Your task to perform on an android device: Toggle the flashlight Image 0: 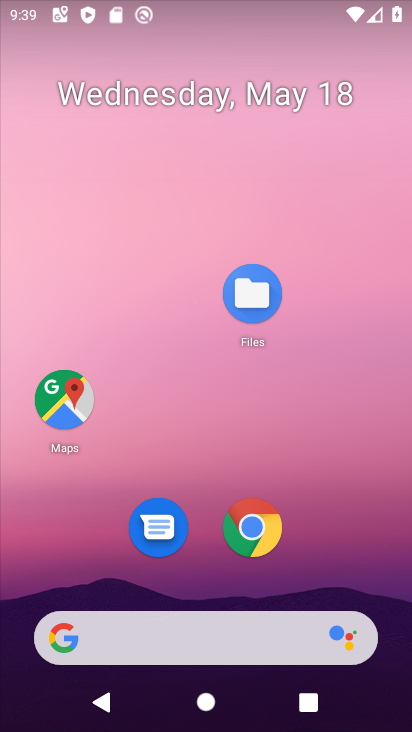
Step 0: drag from (311, 531) to (379, 166)
Your task to perform on an android device: Toggle the flashlight Image 1: 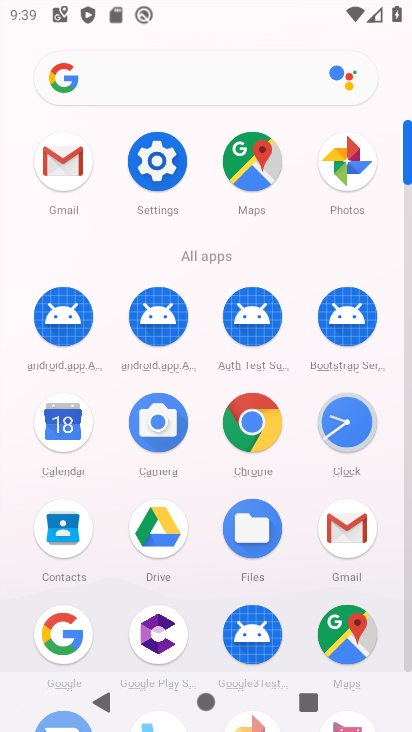
Step 1: click (149, 169)
Your task to perform on an android device: Toggle the flashlight Image 2: 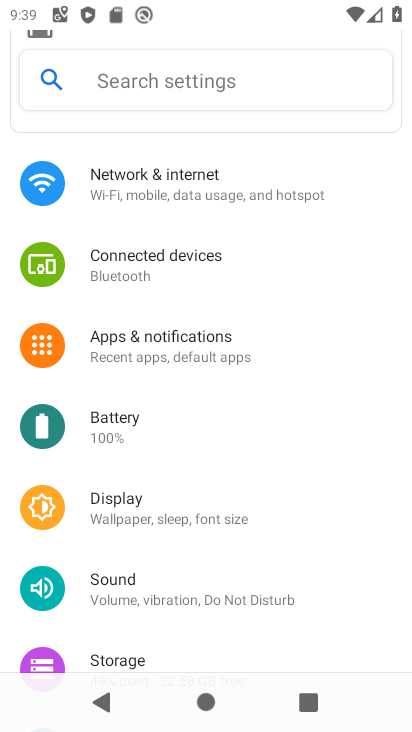
Step 2: click (139, 520)
Your task to perform on an android device: Toggle the flashlight Image 3: 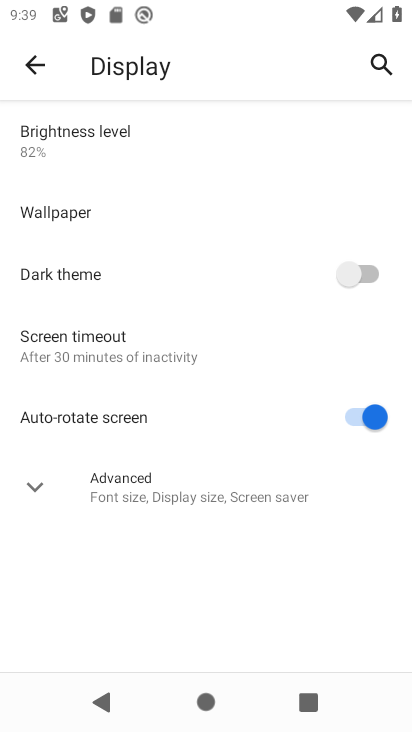
Step 3: click (28, 487)
Your task to perform on an android device: Toggle the flashlight Image 4: 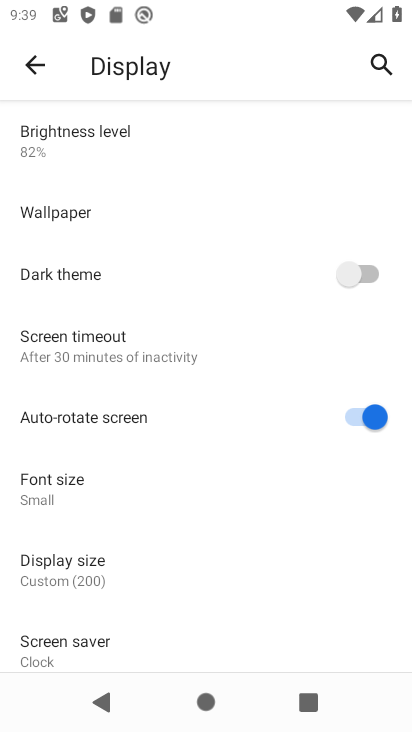
Step 4: task complete